Your task to perform on an android device: open device folders in google photos Image 0: 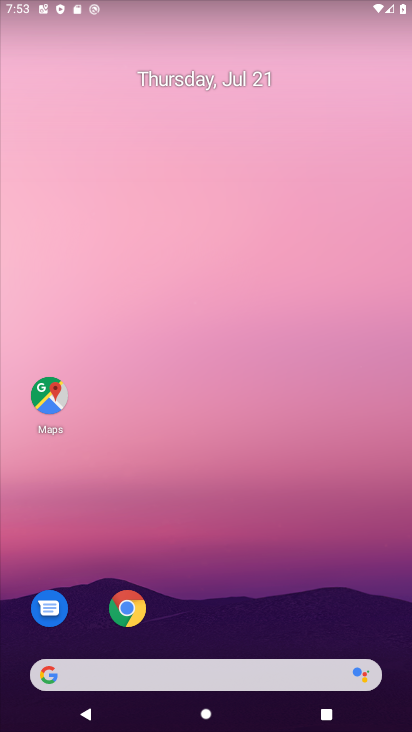
Step 0: drag from (179, 671) to (228, 204)
Your task to perform on an android device: open device folders in google photos Image 1: 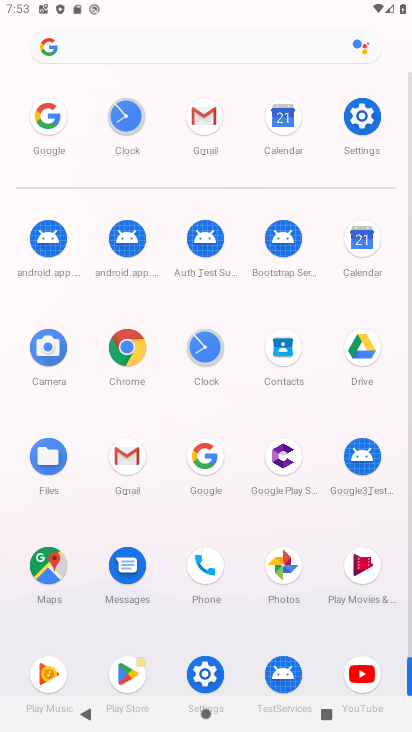
Step 1: click (284, 564)
Your task to perform on an android device: open device folders in google photos Image 2: 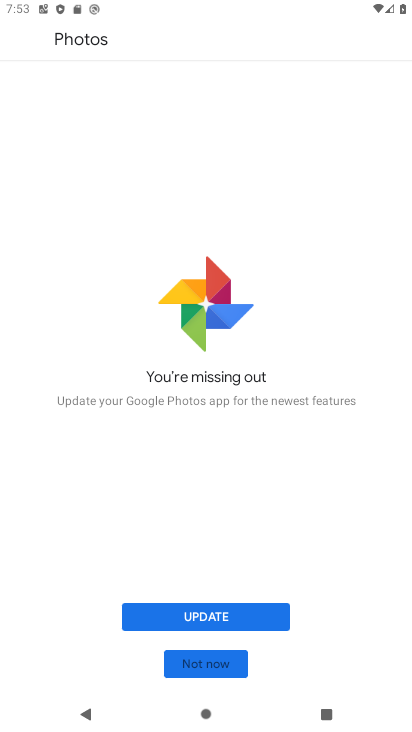
Step 2: click (204, 614)
Your task to perform on an android device: open device folders in google photos Image 3: 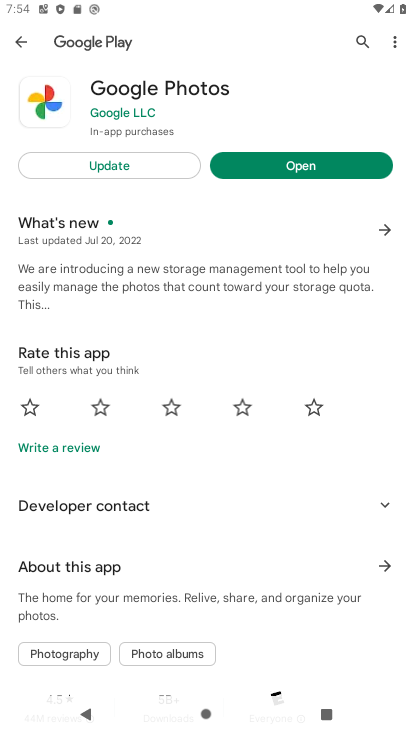
Step 3: click (276, 168)
Your task to perform on an android device: open device folders in google photos Image 4: 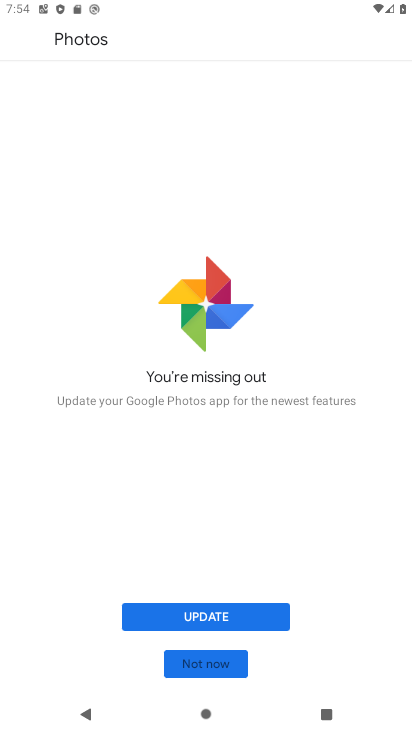
Step 4: click (211, 616)
Your task to perform on an android device: open device folders in google photos Image 5: 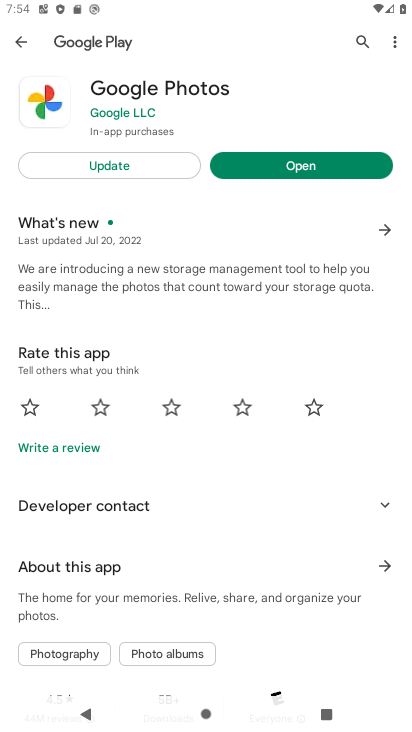
Step 5: click (128, 165)
Your task to perform on an android device: open device folders in google photos Image 6: 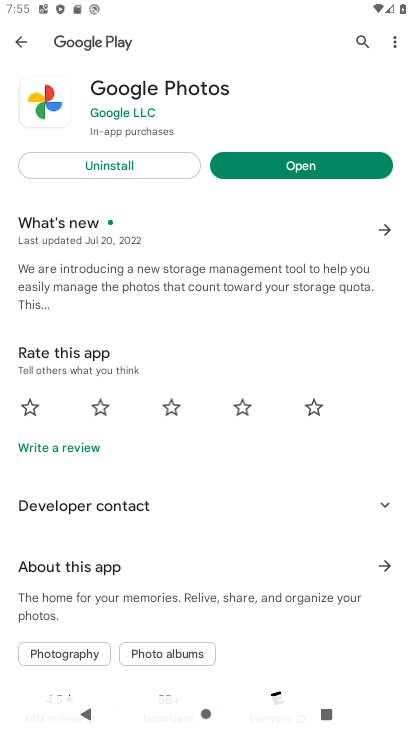
Step 6: click (301, 166)
Your task to perform on an android device: open device folders in google photos Image 7: 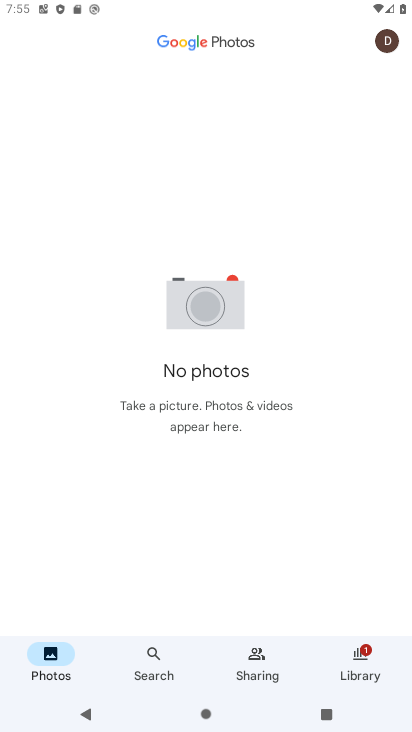
Step 7: click (395, 42)
Your task to perform on an android device: open device folders in google photos Image 8: 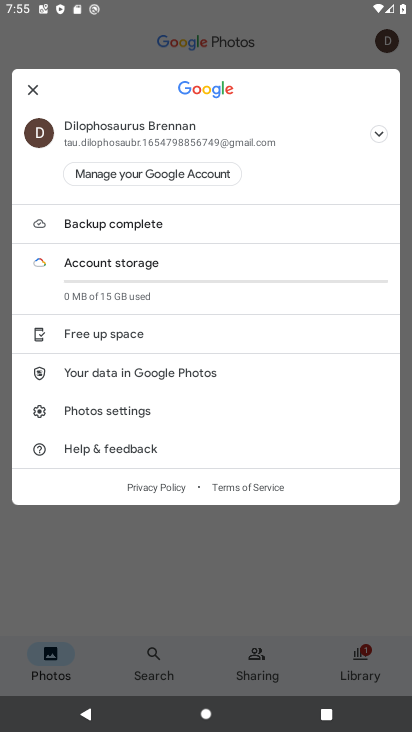
Step 8: click (114, 411)
Your task to perform on an android device: open device folders in google photos Image 9: 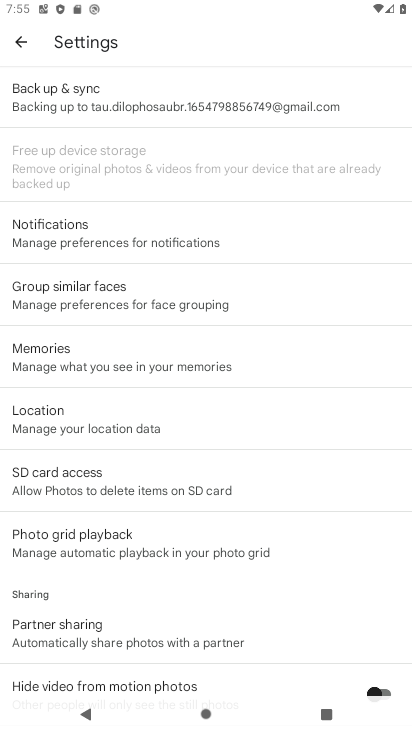
Step 9: drag from (149, 428) to (207, 333)
Your task to perform on an android device: open device folders in google photos Image 10: 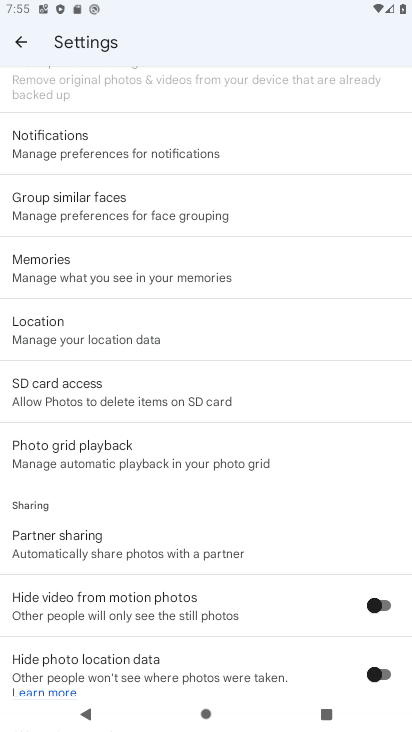
Step 10: drag from (134, 478) to (197, 364)
Your task to perform on an android device: open device folders in google photos Image 11: 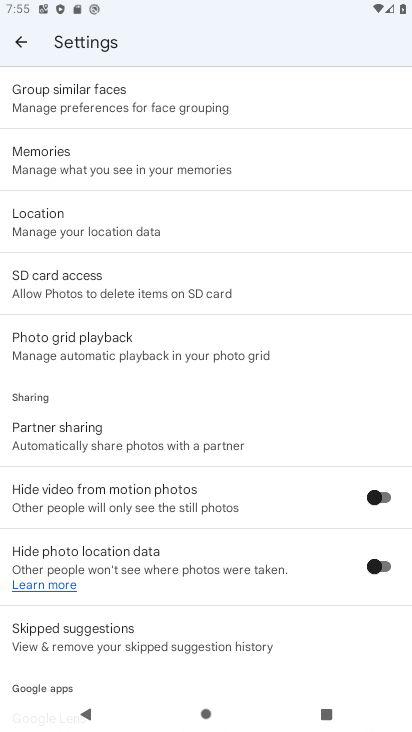
Step 11: drag from (136, 575) to (218, 403)
Your task to perform on an android device: open device folders in google photos Image 12: 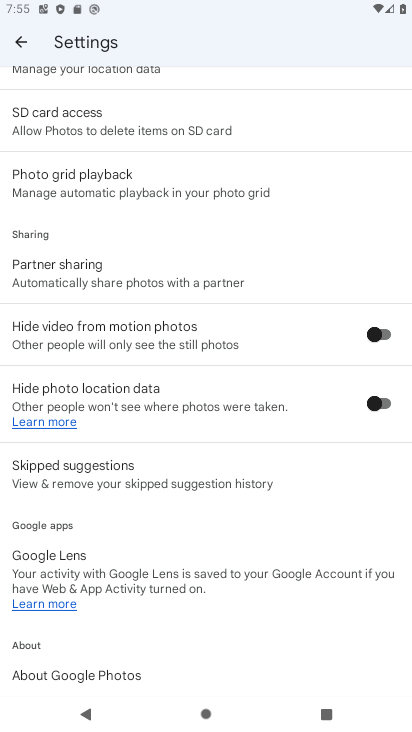
Step 12: drag from (154, 560) to (252, 414)
Your task to perform on an android device: open device folders in google photos Image 13: 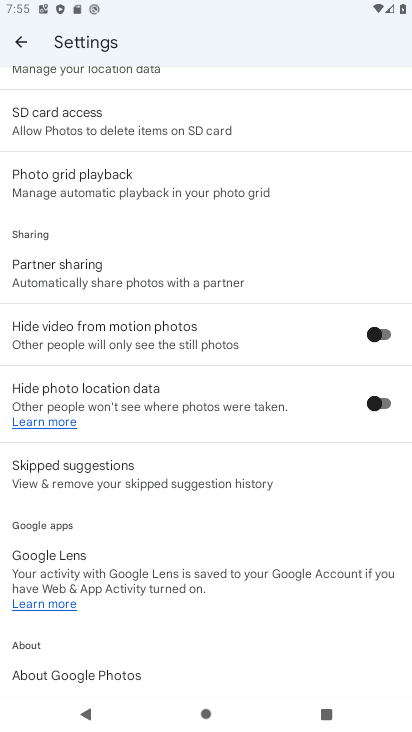
Step 13: press back button
Your task to perform on an android device: open device folders in google photos Image 14: 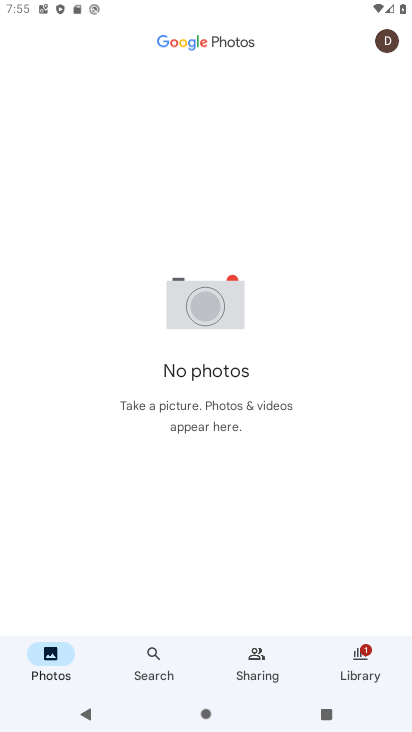
Step 14: click (154, 650)
Your task to perform on an android device: open device folders in google photos Image 15: 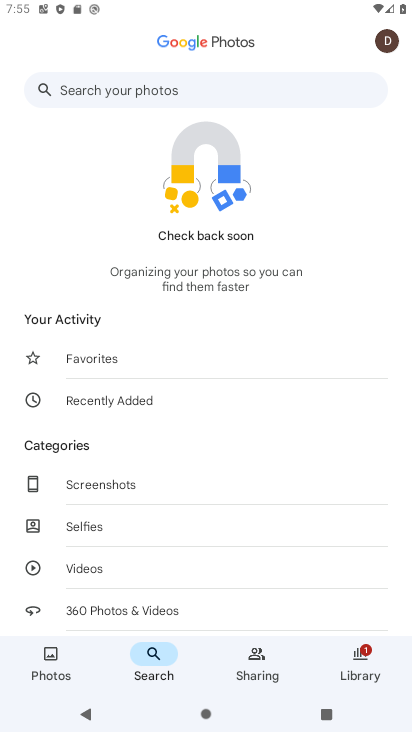
Step 15: task complete